Your task to perform on an android device: Go to Google Image 0: 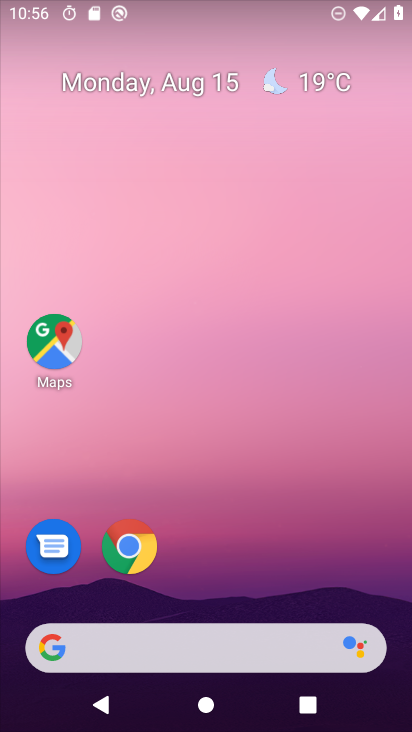
Step 0: drag from (270, 545) to (270, 180)
Your task to perform on an android device: Go to Google Image 1: 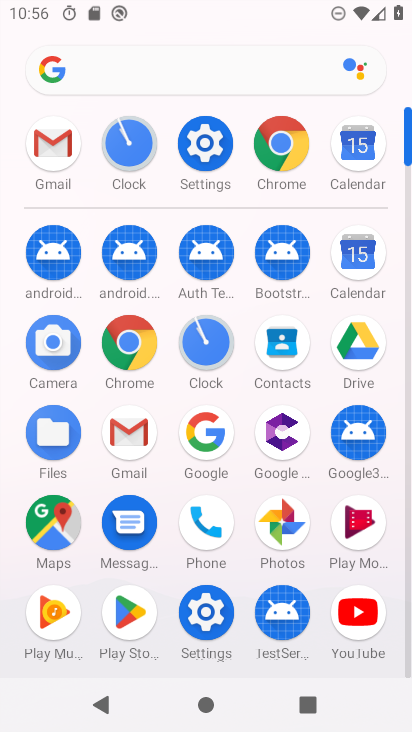
Step 1: click (205, 437)
Your task to perform on an android device: Go to Google Image 2: 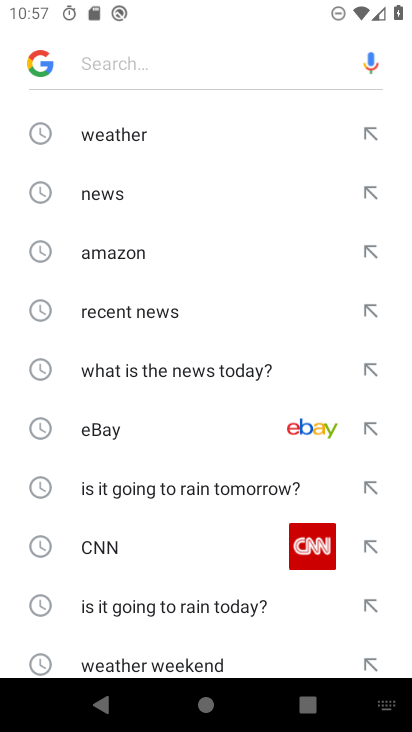
Step 2: click (41, 60)
Your task to perform on an android device: Go to Google Image 3: 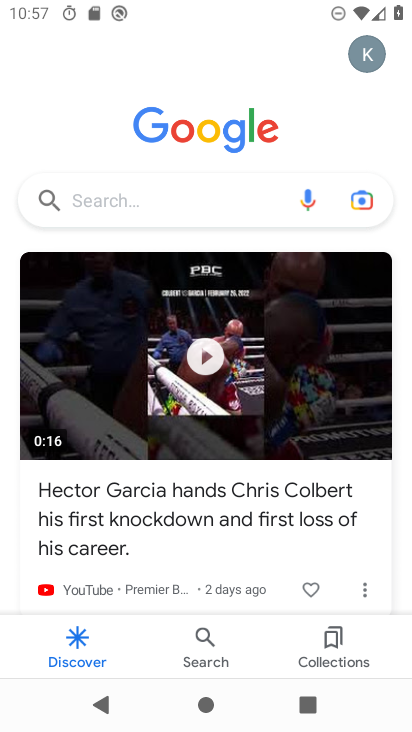
Step 3: task complete